Your task to perform on an android device: Do I have any events tomorrow? Image 0: 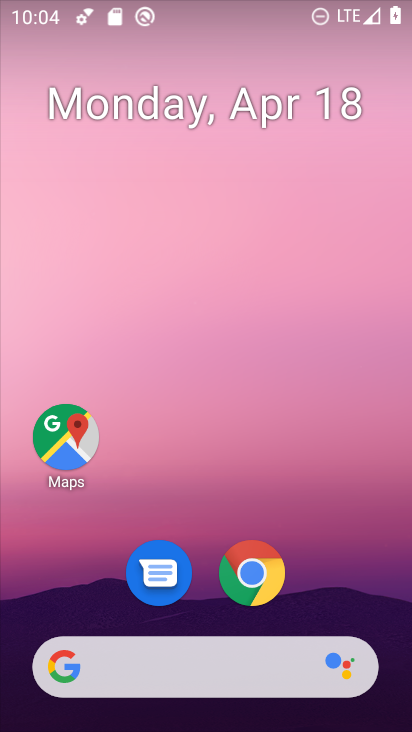
Step 0: drag from (345, 588) to (267, 124)
Your task to perform on an android device: Do I have any events tomorrow? Image 1: 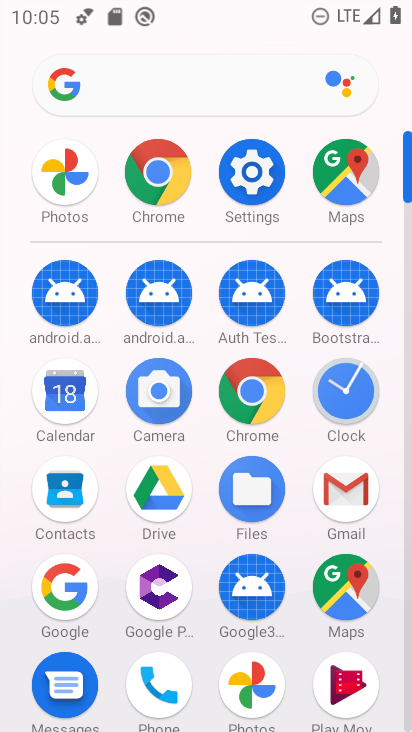
Step 1: click (59, 401)
Your task to perform on an android device: Do I have any events tomorrow? Image 2: 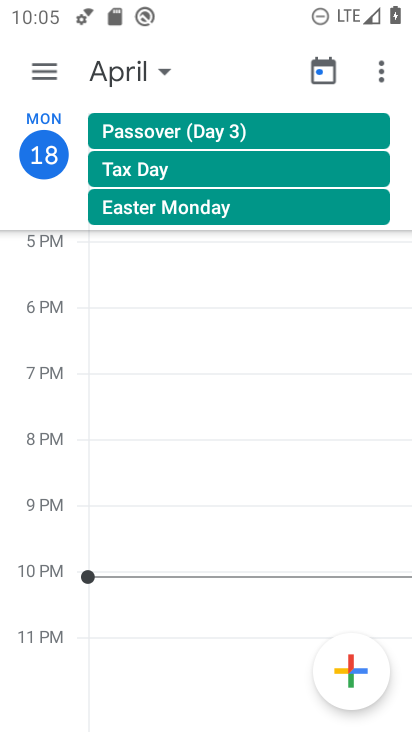
Step 2: drag from (54, 580) to (54, 196)
Your task to perform on an android device: Do I have any events tomorrow? Image 3: 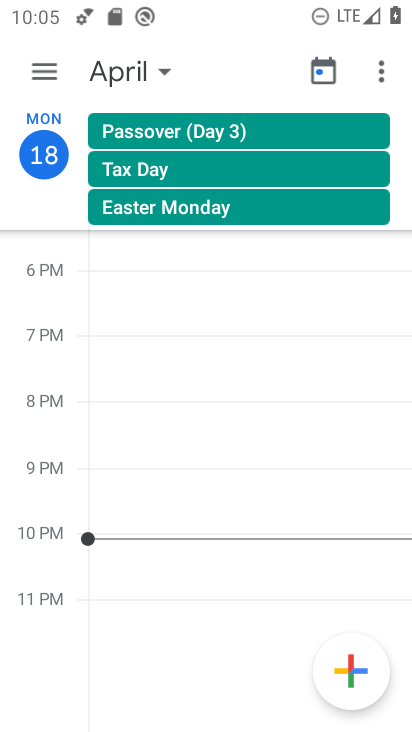
Step 3: click (41, 74)
Your task to perform on an android device: Do I have any events tomorrow? Image 4: 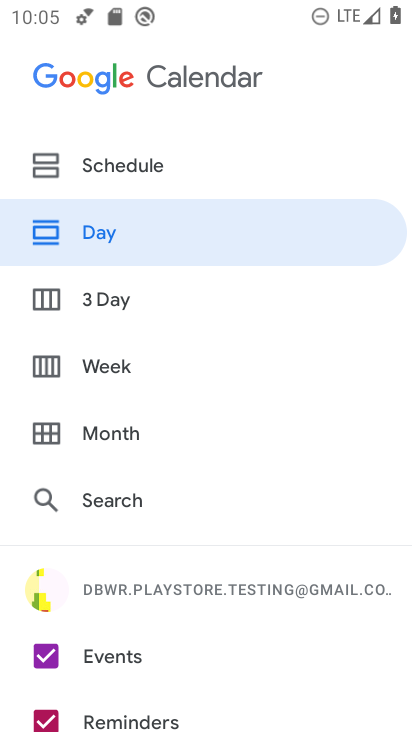
Step 4: task complete